Your task to perform on an android device: What is the news today? Image 0: 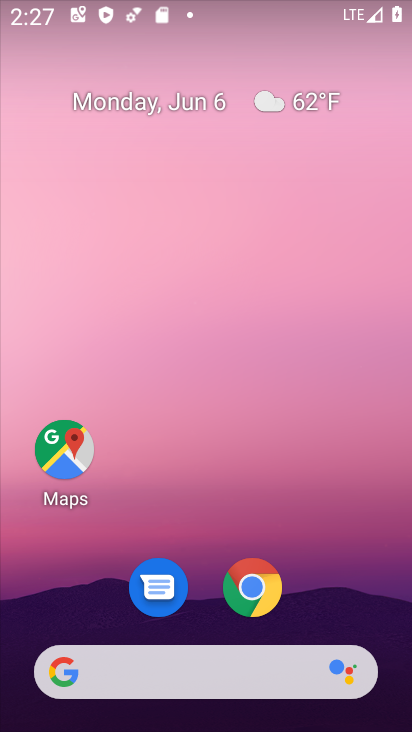
Step 0: drag from (343, 589) to (239, 19)
Your task to perform on an android device: What is the news today? Image 1: 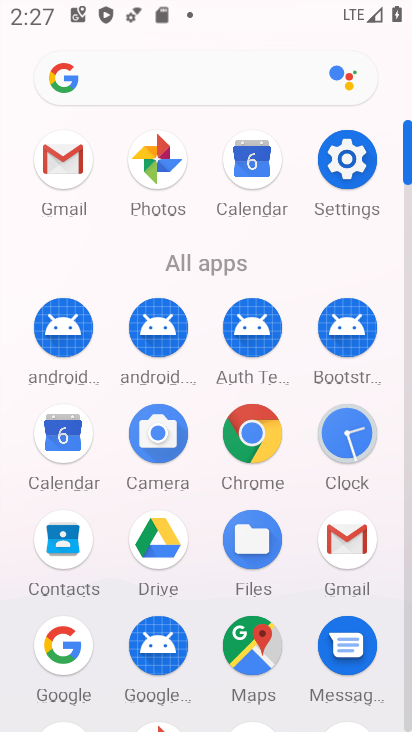
Step 1: drag from (17, 615) to (18, 260)
Your task to perform on an android device: What is the news today? Image 2: 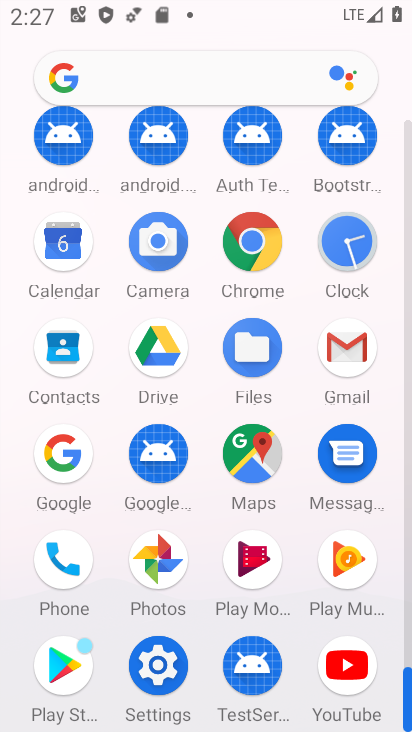
Step 2: click (256, 239)
Your task to perform on an android device: What is the news today? Image 3: 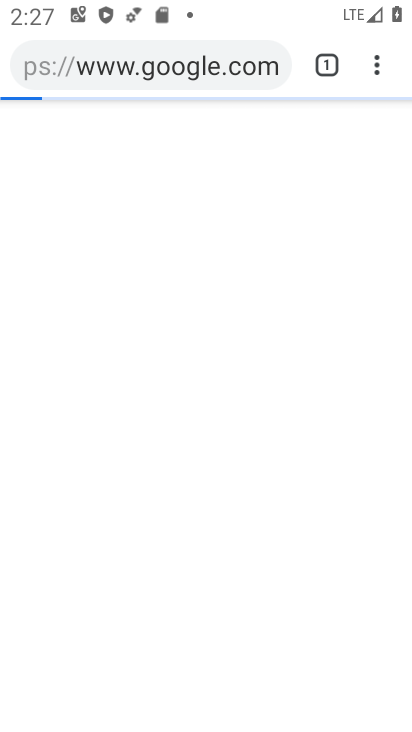
Step 3: click (200, 58)
Your task to perform on an android device: What is the news today? Image 4: 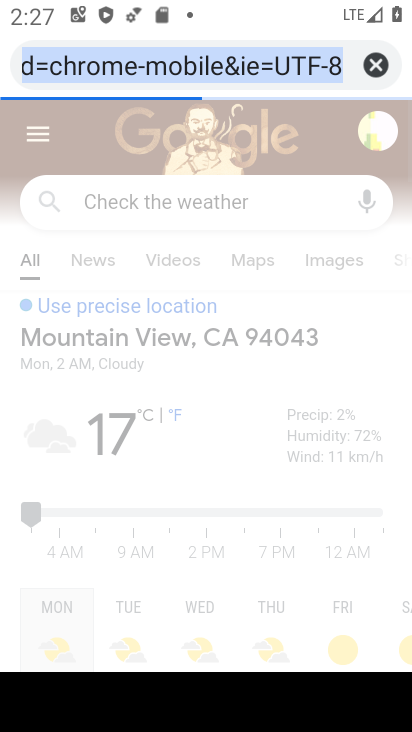
Step 4: click (379, 53)
Your task to perform on an android device: What is the news today? Image 5: 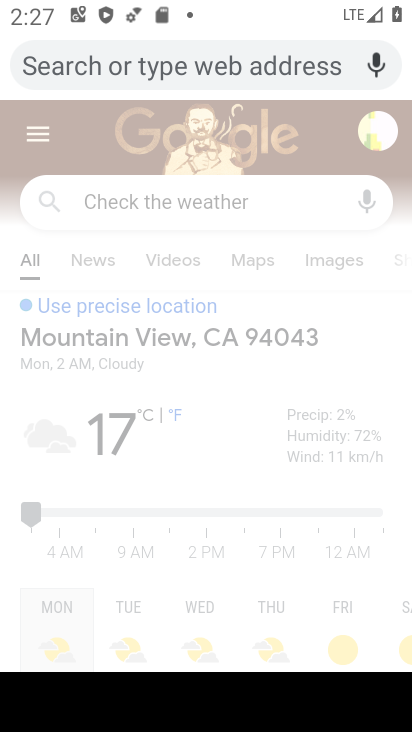
Step 5: type "What is the news today?"
Your task to perform on an android device: What is the news today? Image 6: 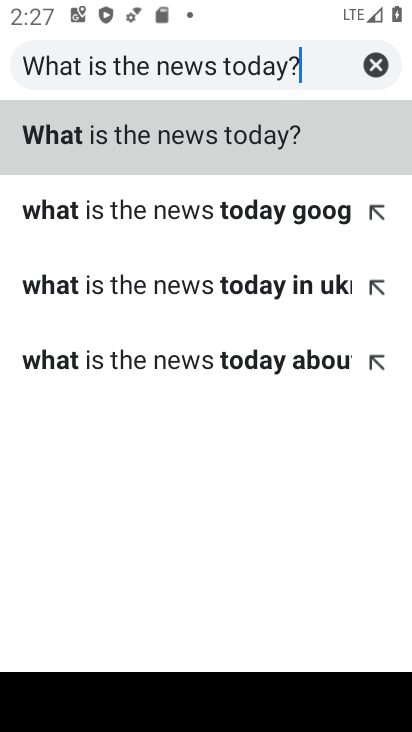
Step 6: type ""
Your task to perform on an android device: What is the news today? Image 7: 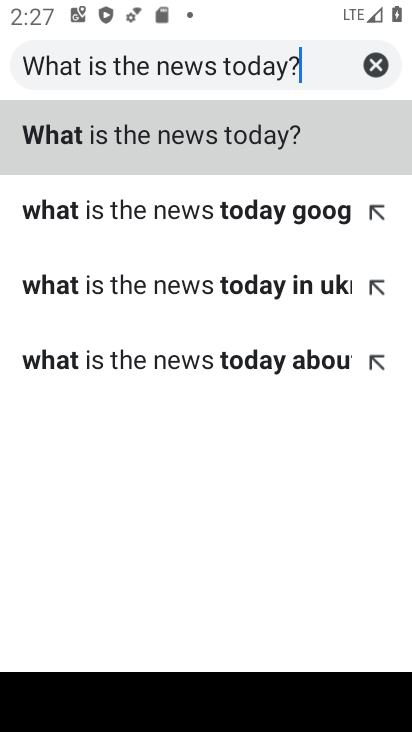
Step 7: click (67, 127)
Your task to perform on an android device: What is the news today? Image 8: 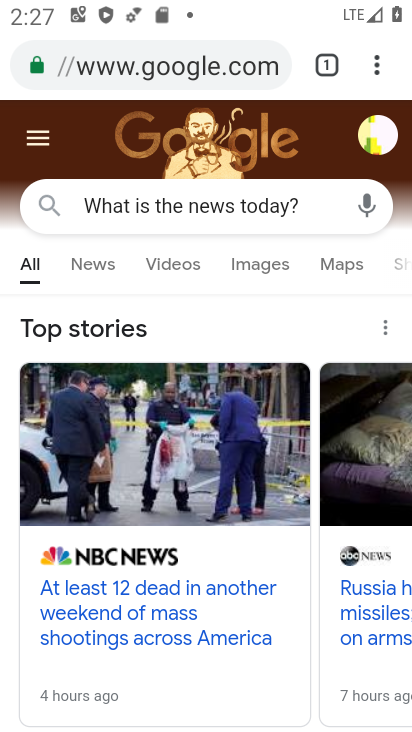
Step 8: task complete